Your task to perform on an android device: Go to Amazon Image 0: 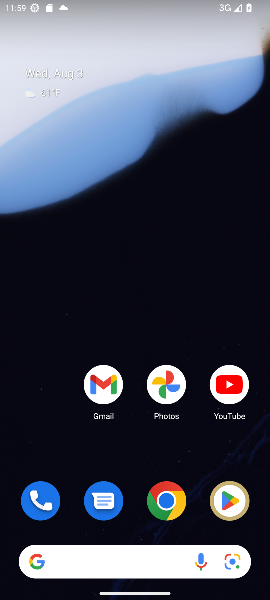
Step 0: click (167, 509)
Your task to perform on an android device: Go to Amazon Image 1: 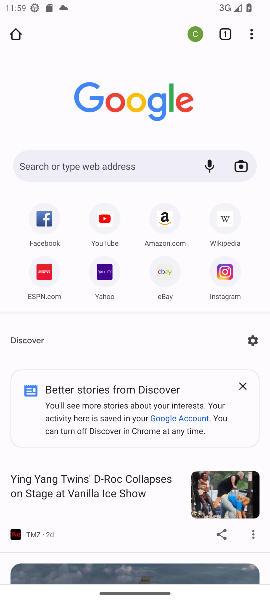
Step 1: click (161, 215)
Your task to perform on an android device: Go to Amazon Image 2: 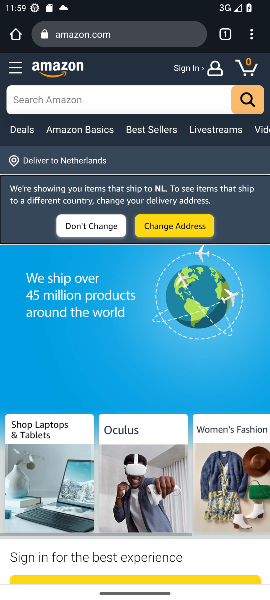
Step 2: task complete